Your task to perform on an android device: open app "DoorDash - Dasher" Image 0: 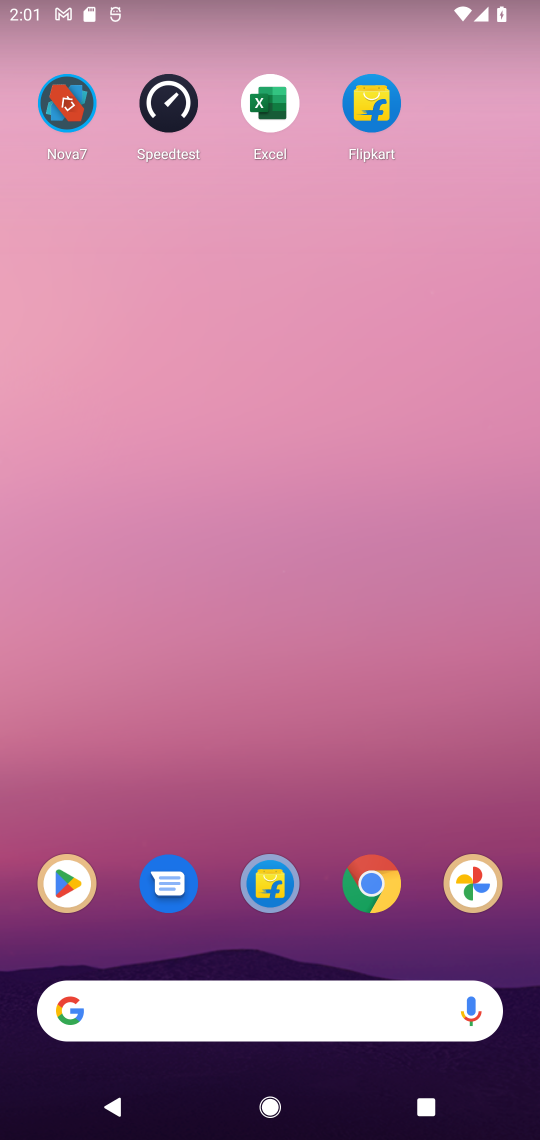
Step 0: click (62, 874)
Your task to perform on an android device: open app "DoorDash - Dasher" Image 1: 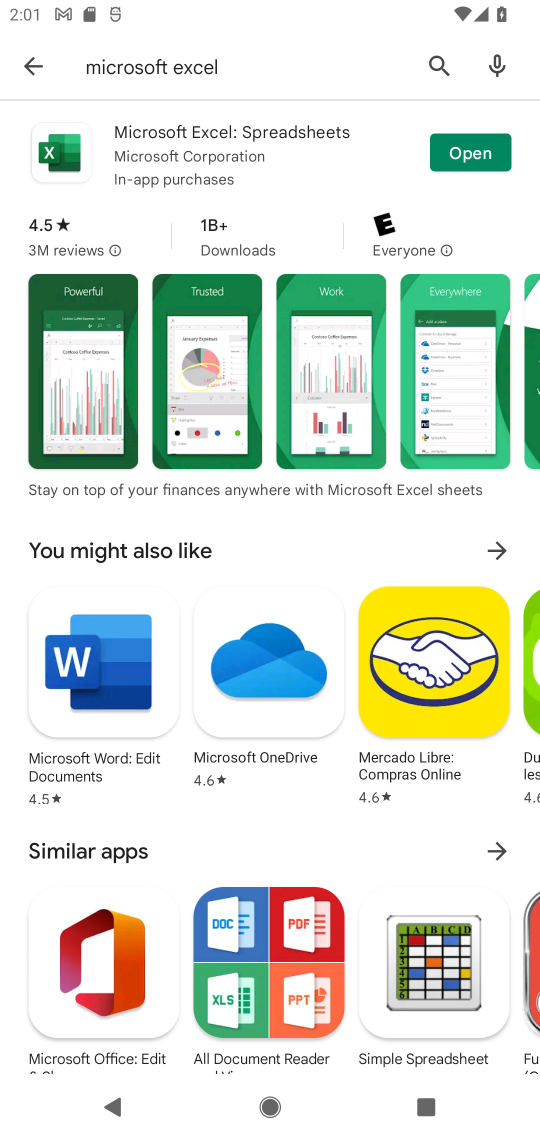
Step 1: click (442, 52)
Your task to perform on an android device: open app "DoorDash - Dasher" Image 2: 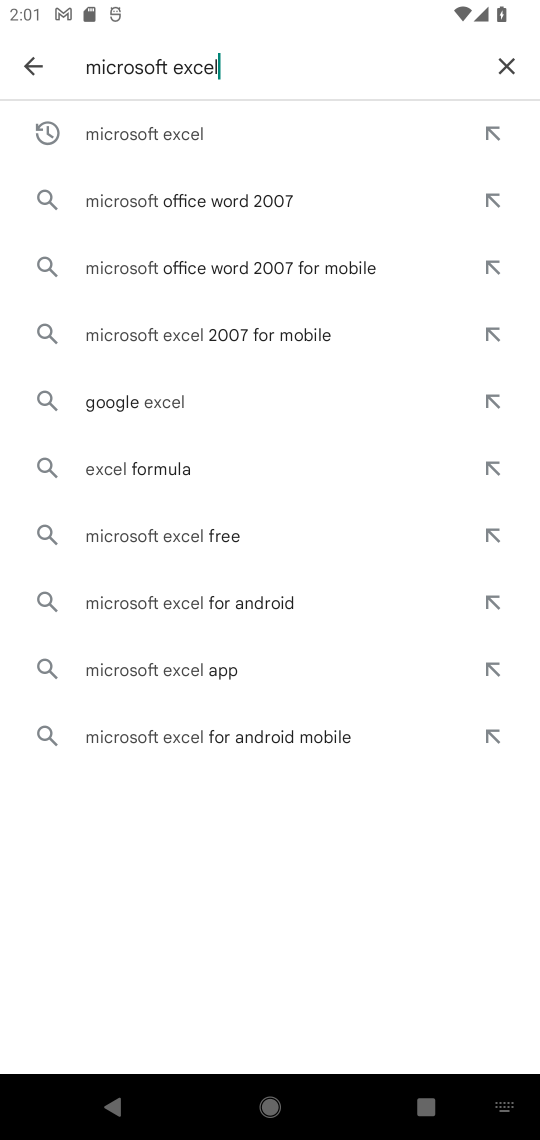
Step 2: click (504, 59)
Your task to perform on an android device: open app "DoorDash - Dasher" Image 3: 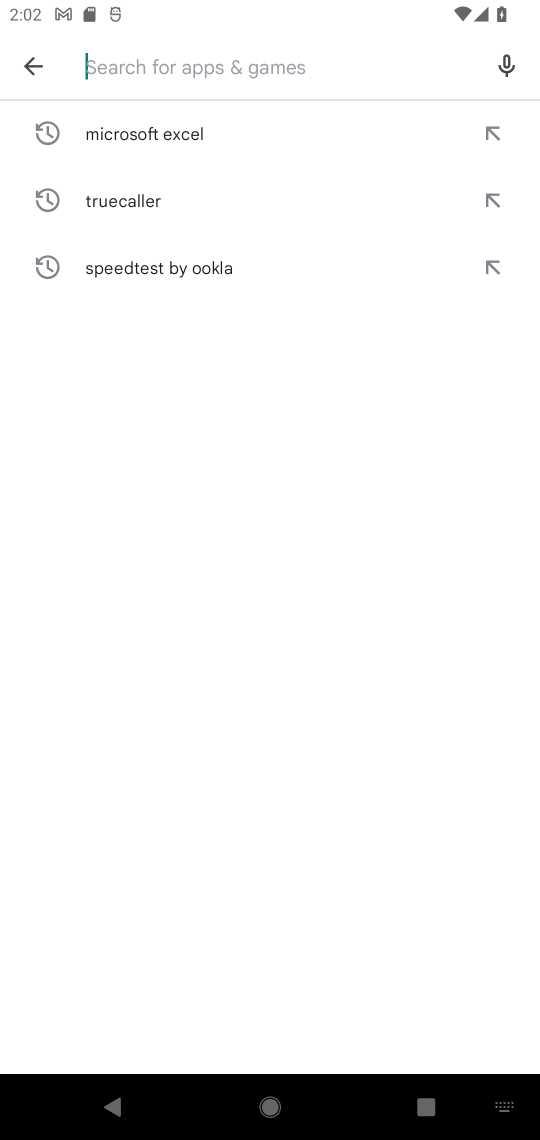
Step 3: type "DoorDash"
Your task to perform on an android device: open app "DoorDash - Dasher" Image 4: 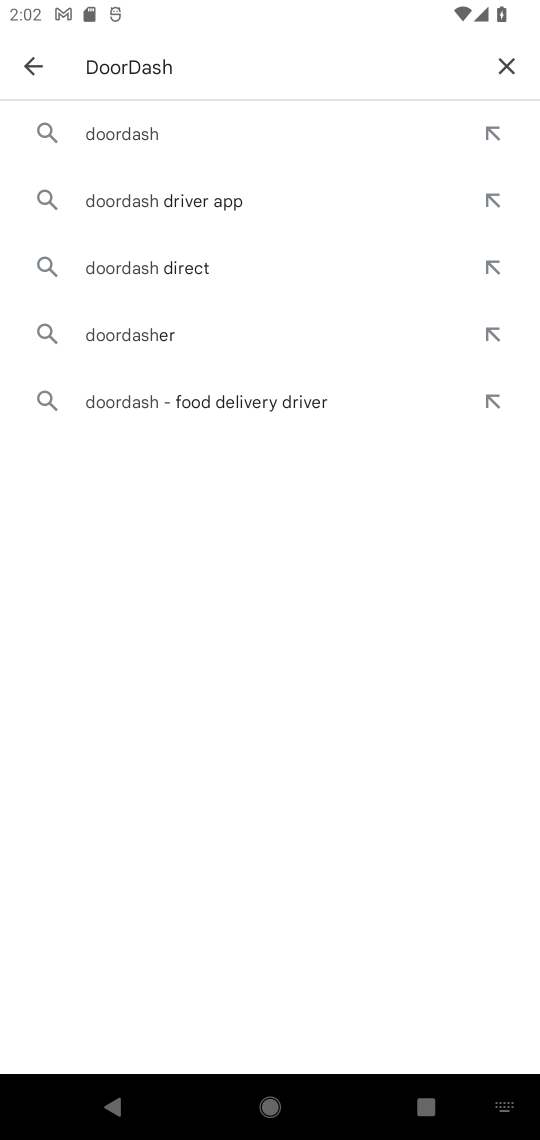
Step 4: click (114, 135)
Your task to perform on an android device: open app "DoorDash - Dasher" Image 5: 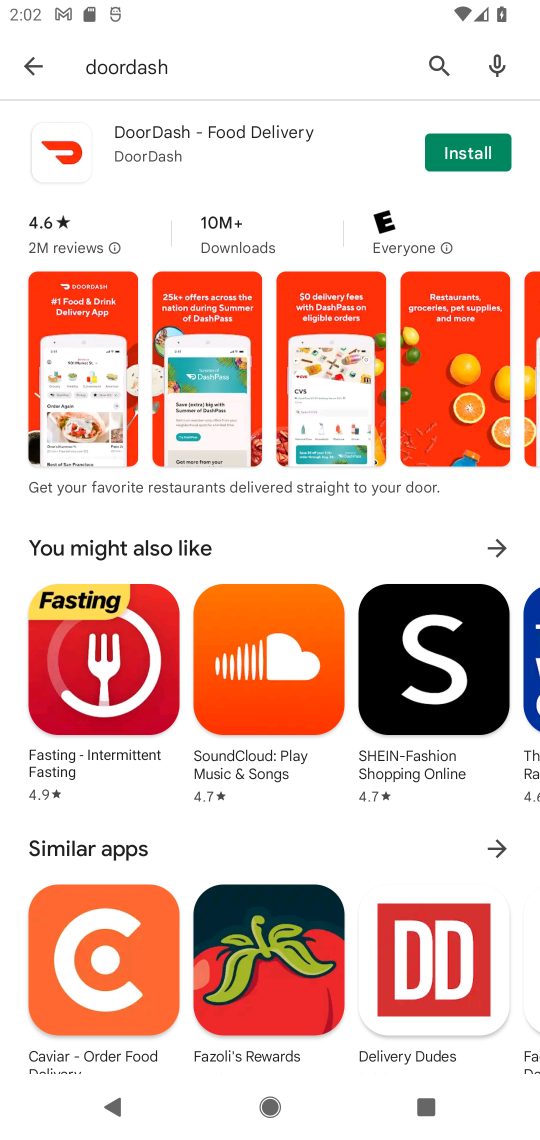
Step 5: click (485, 145)
Your task to perform on an android device: open app "DoorDash - Dasher" Image 6: 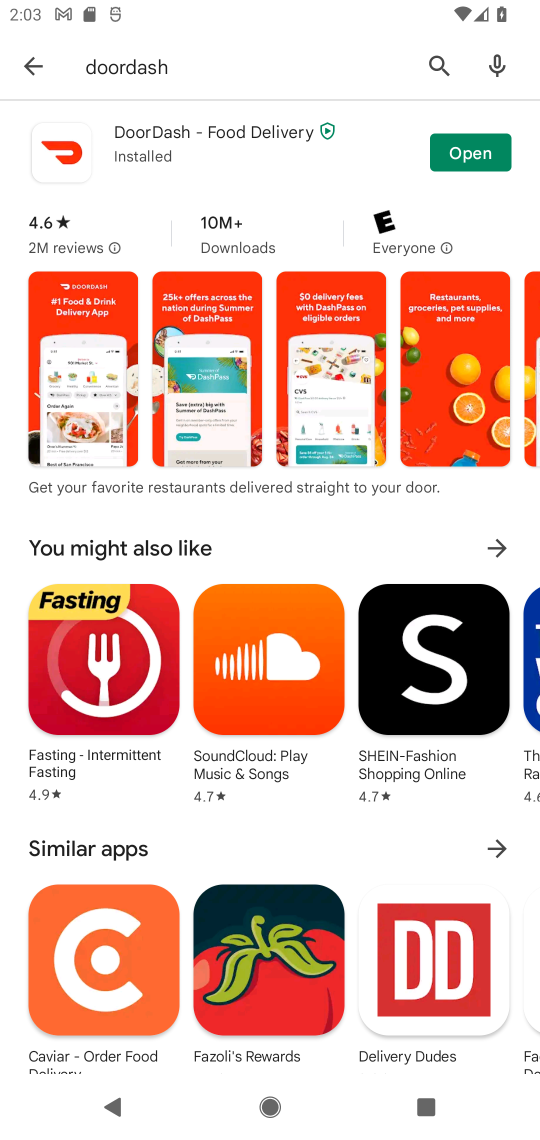
Step 6: click (483, 151)
Your task to perform on an android device: open app "DoorDash - Dasher" Image 7: 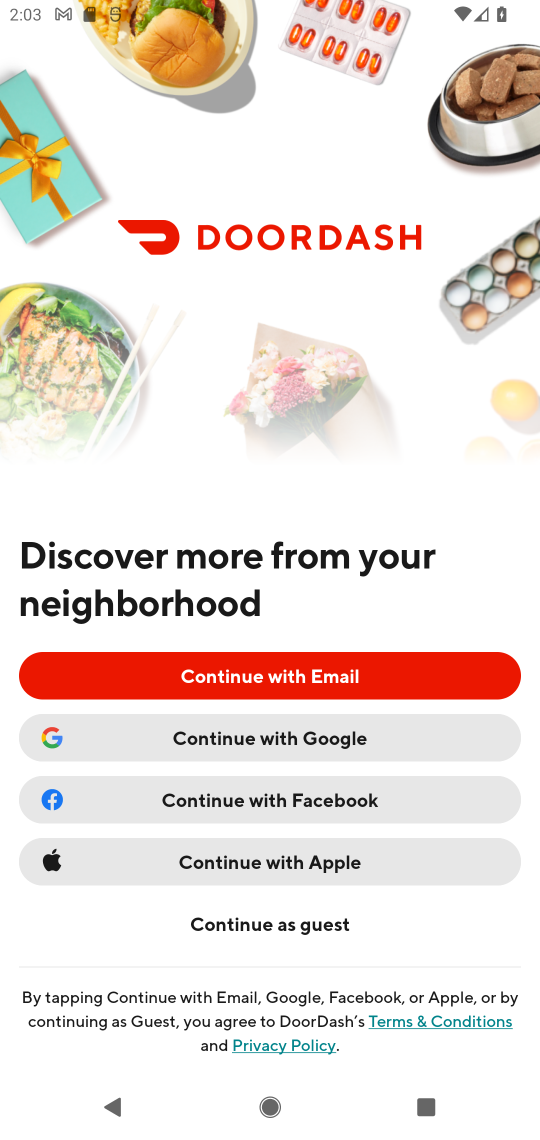
Step 7: task complete